Your task to perform on an android device: change the clock display to digital Image 0: 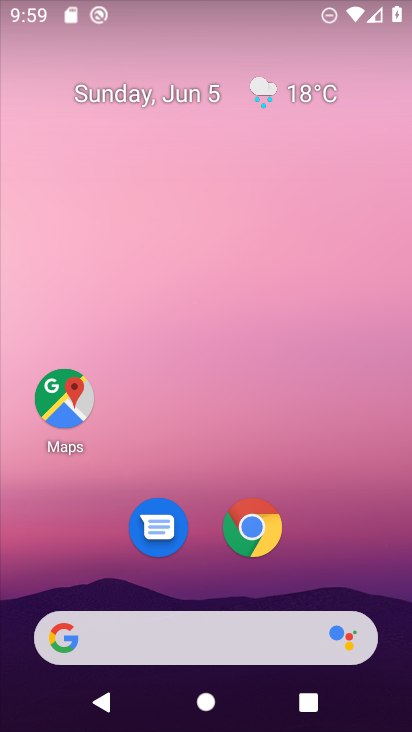
Step 0: drag from (206, 537) to (261, 92)
Your task to perform on an android device: change the clock display to digital Image 1: 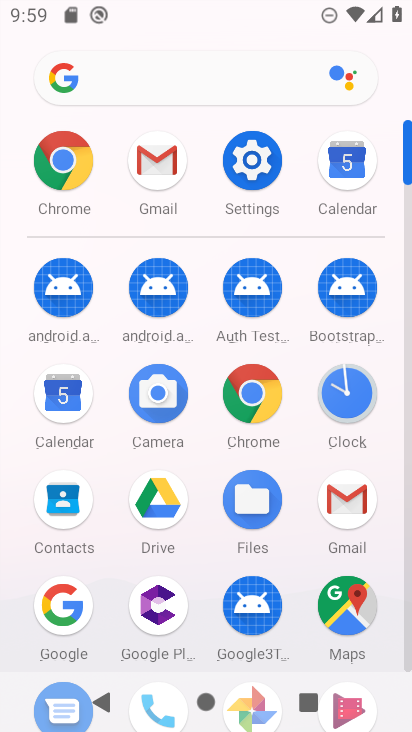
Step 1: click (342, 407)
Your task to perform on an android device: change the clock display to digital Image 2: 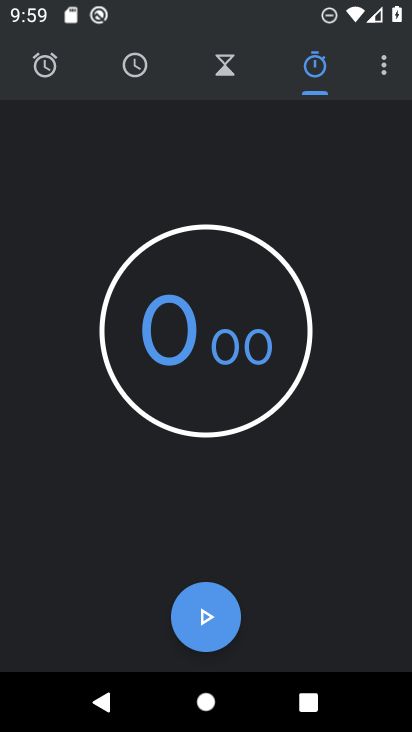
Step 2: click (378, 63)
Your task to perform on an android device: change the clock display to digital Image 3: 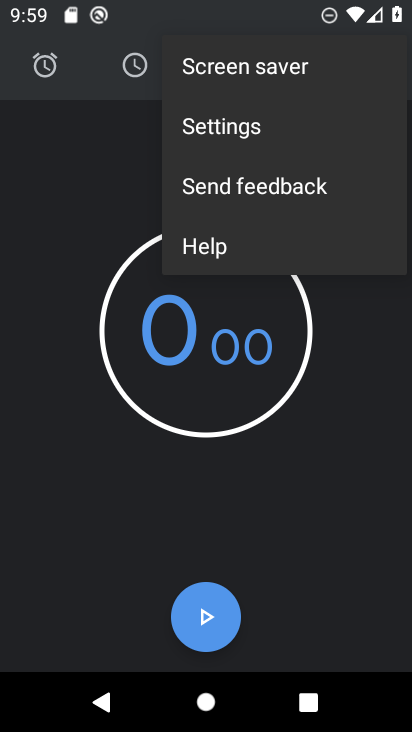
Step 3: click (240, 135)
Your task to perform on an android device: change the clock display to digital Image 4: 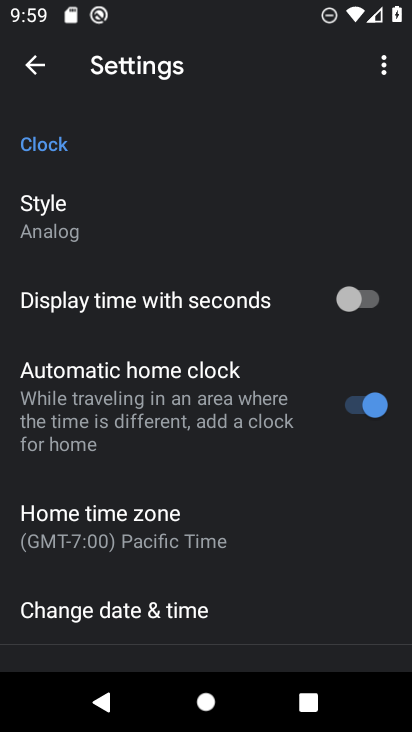
Step 4: click (77, 205)
Your task to perform on an android device: change the clock display to digital Image 5: 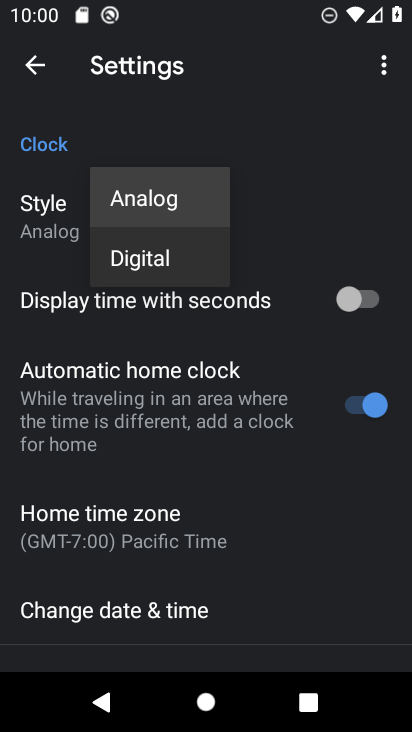
Step 5: click (168, 259)
Your task to perform on an android device: change the clock display to digital Image 6: 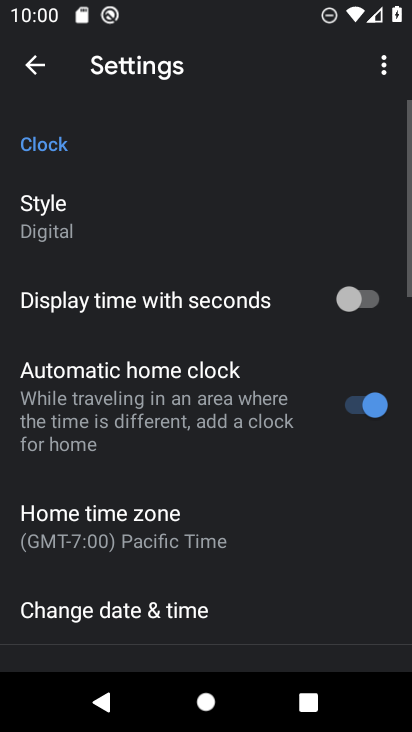
Step 6: task complete